Your task to perform on an android device: Open the stopwatch Image 0: 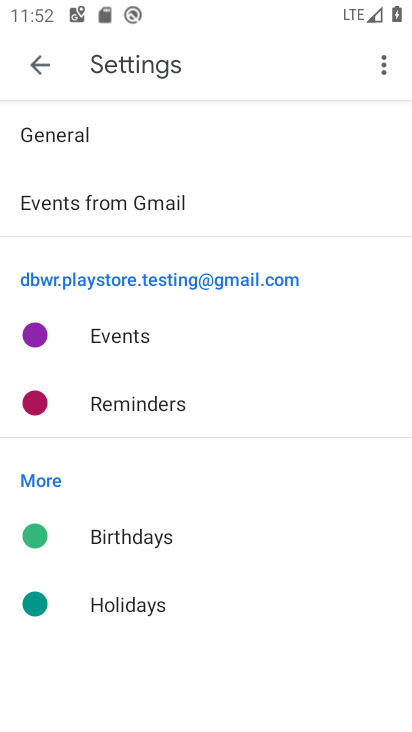
Step 0: press home button
Your task to perform on an android device: Open the stopwatch Image 1: 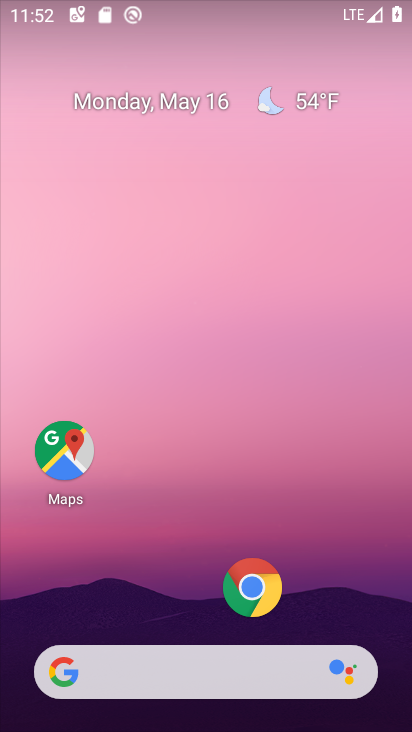
Step 1: drag from (200, 599) to (354, 12)
Your task to perform on an android device: Open the stopwatch Image 2: 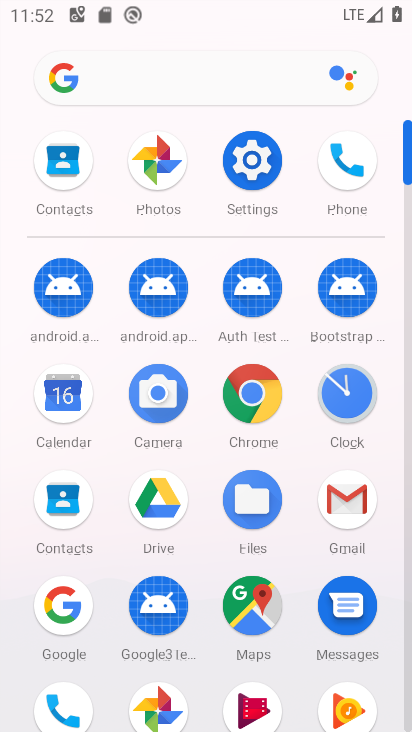
Step 2: click (343, 396)
Your task to perform on an android device: Open the stopwatch Image 3: 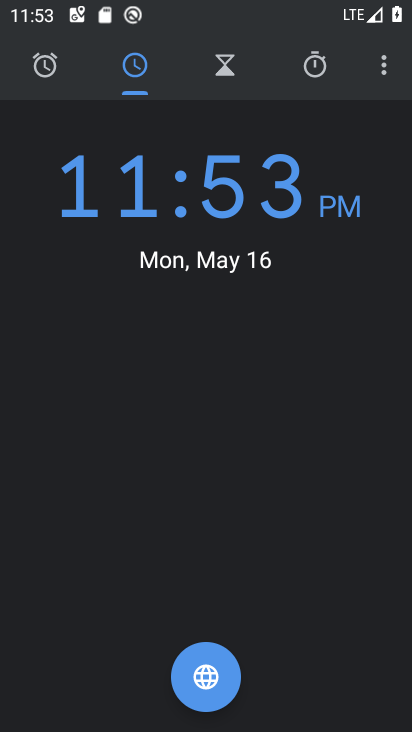
Step 3: click (308, 80)
Your task to perform on an android device: Open the stopwatch Image 4: 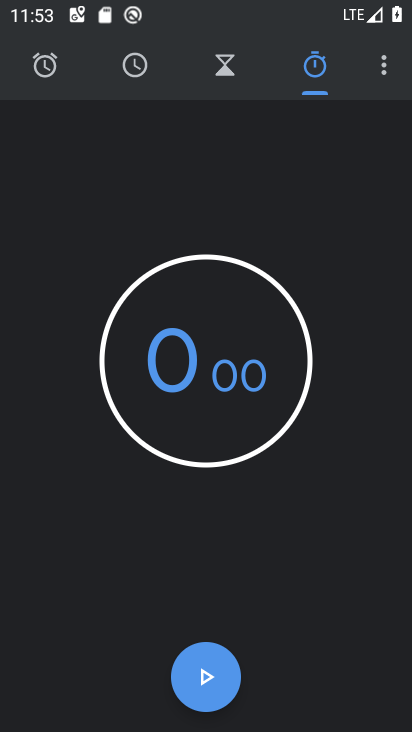
Step 4: click (210, 664)
Your task to perform on an android device: Open the stopwatch Image 5: 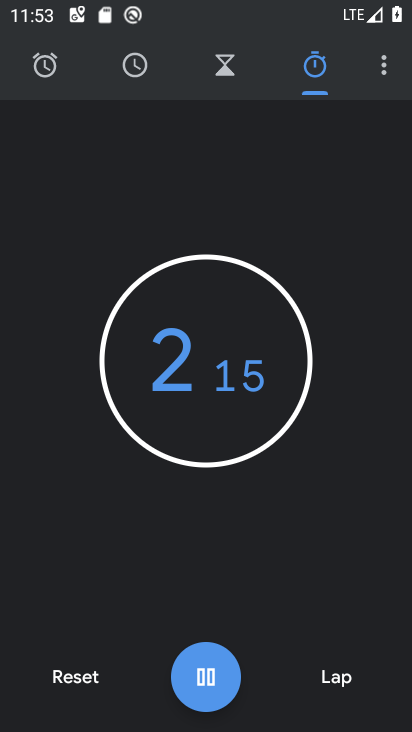
Step 5: task complete